Your task to perform on an android device: What's the weather going to be tomorrow? Image 0: 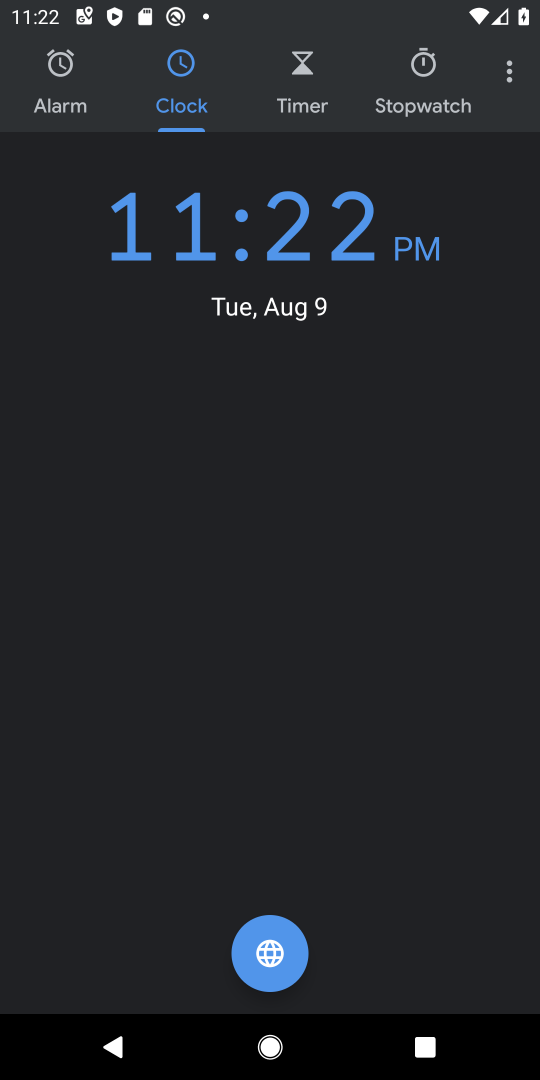
Step 0: press home button
Your task to perform on an android device: What's the weather going to be tomorrow? Image 1: 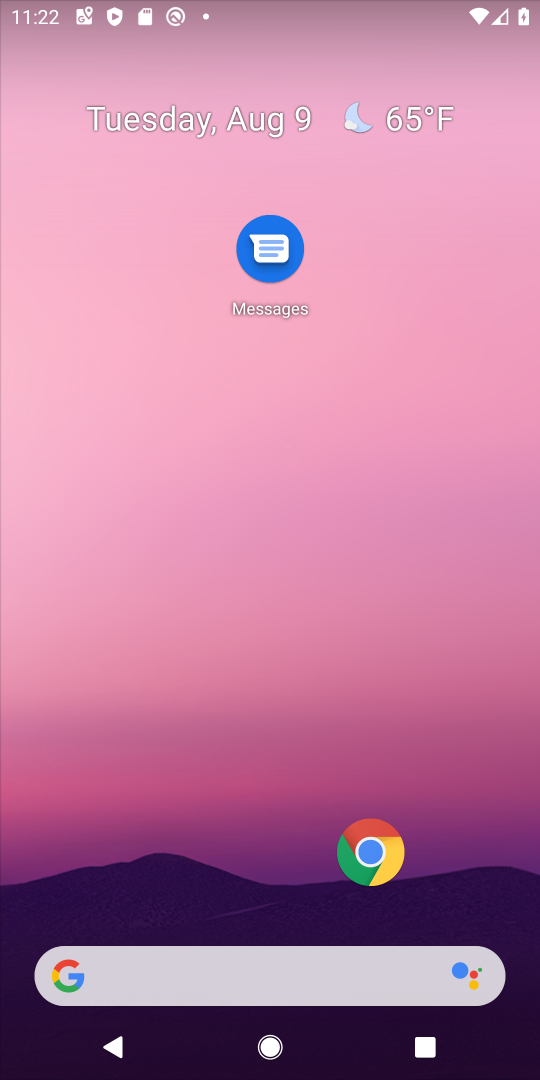
Step 1: click (198, 991)
Your task to perform on an android device: What's the weather going to be tomorrow? Image 2: 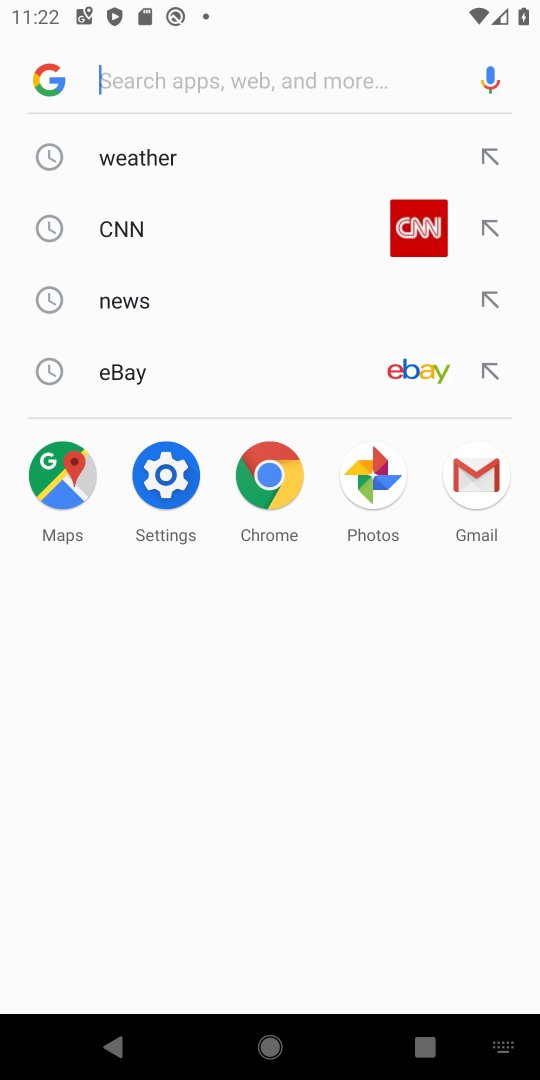
Step 2: click (133, 158)
Your task to perform on an android device: What's the weather going to be tomorrow? Image 3: 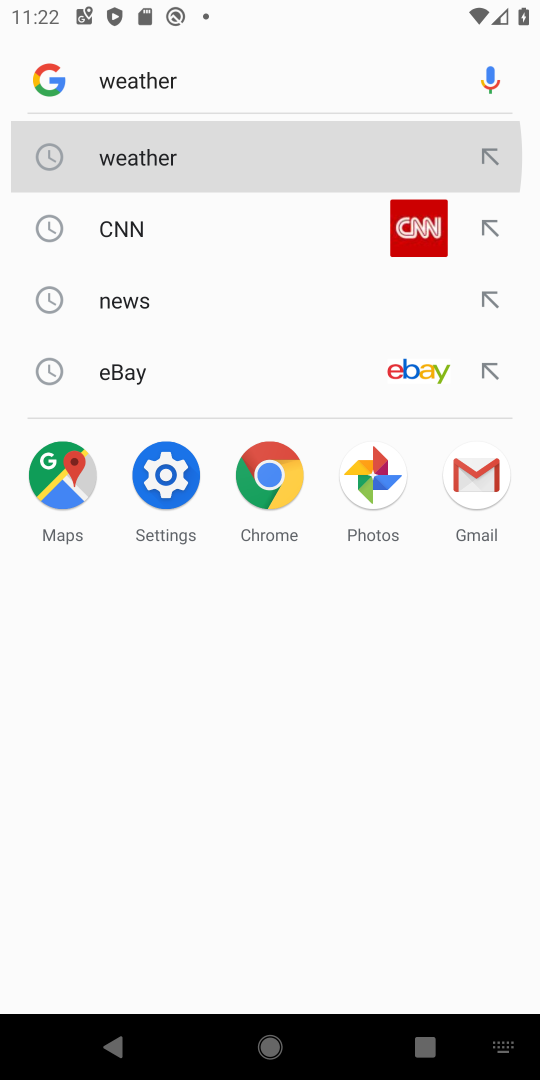
Step 3: click (133, 158)
Your task to perform on an android device: What's the weather going to be tomorrow? Image 4: 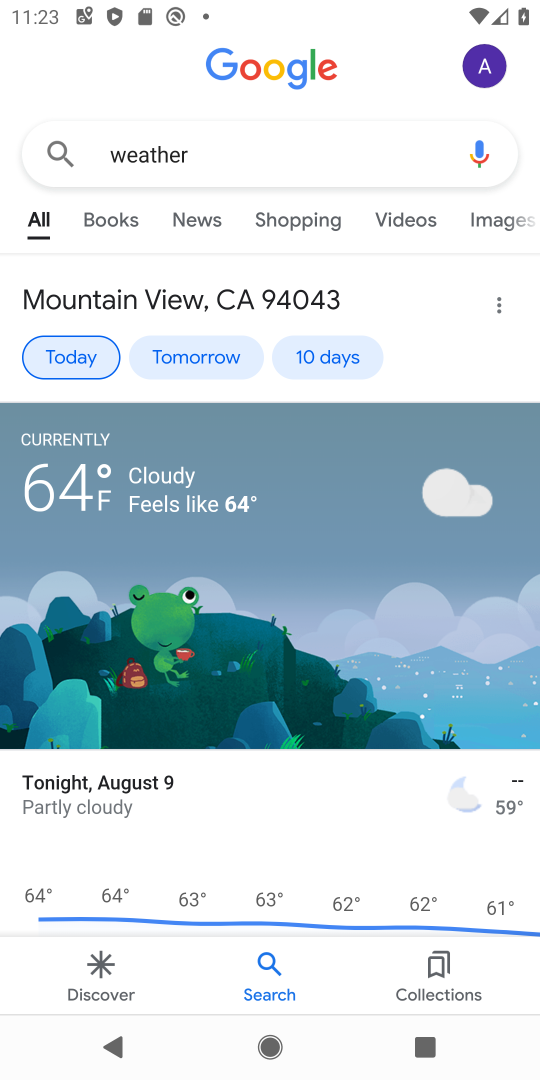
Step 4: click (211, 350)
Your task to perform on an android device: What's the weather going to be tomorrow? Image 5: 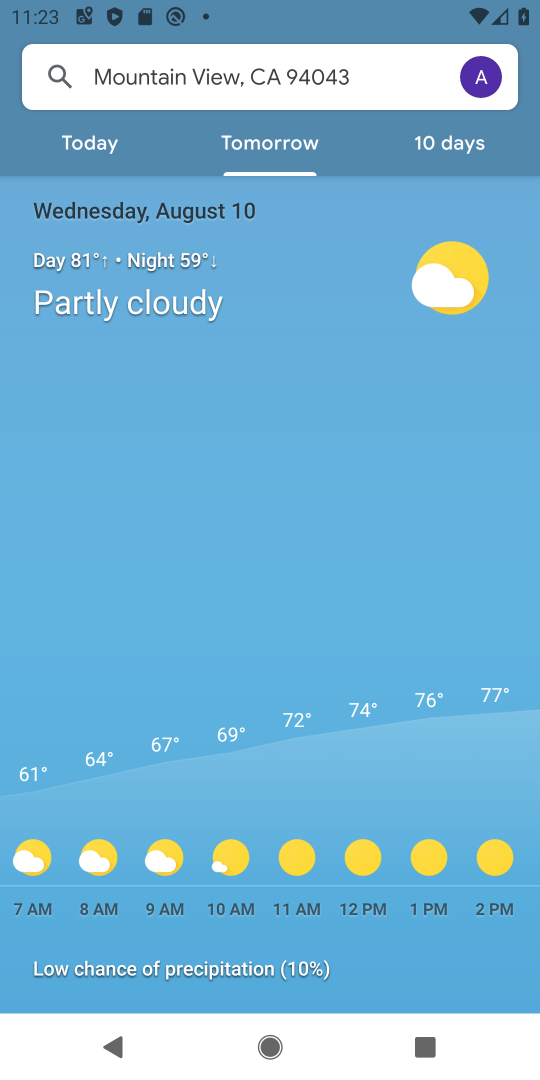
Step 5: task complete